Your task to perform on an android device: turn off improve location accuracy Image 0: 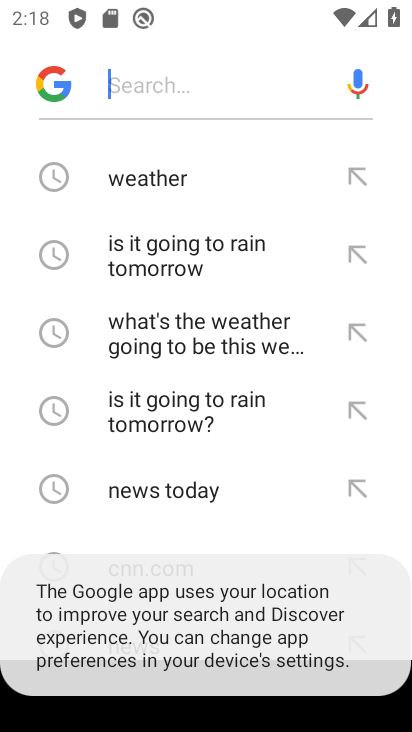
Step 0: press home button
Your task to perform on an android device: turn off improve location accuracy Image 1: 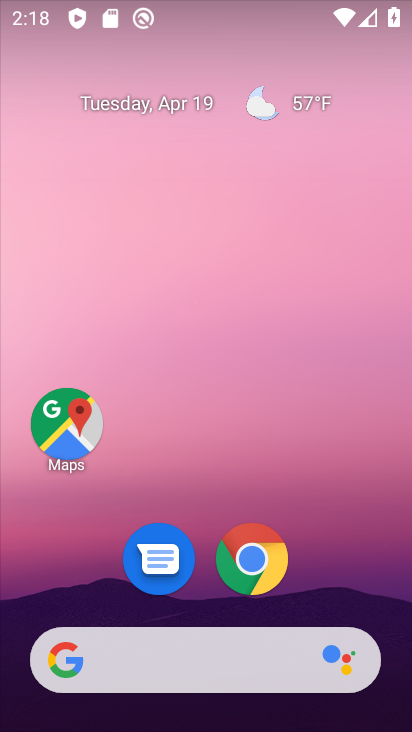
Step 1: drag from (375, 537) to (382, 62)
Your task to perform on an android device: turn off improve location accuracy Image 2: 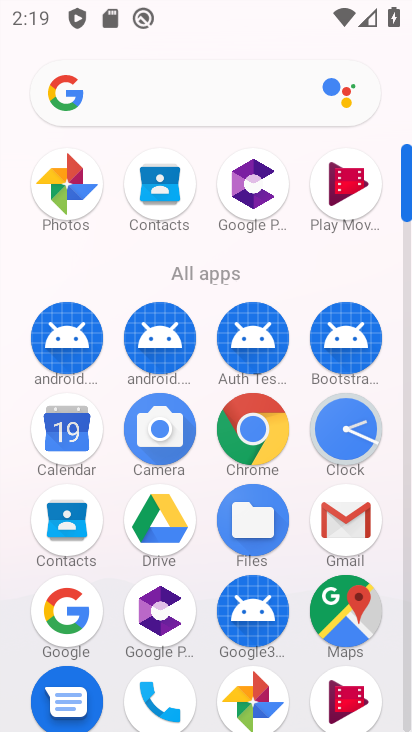
Step 2: drag from (388, 476) to (411, 304)
Your task to perform on an android device: turn off improve location accuracy Image 3: 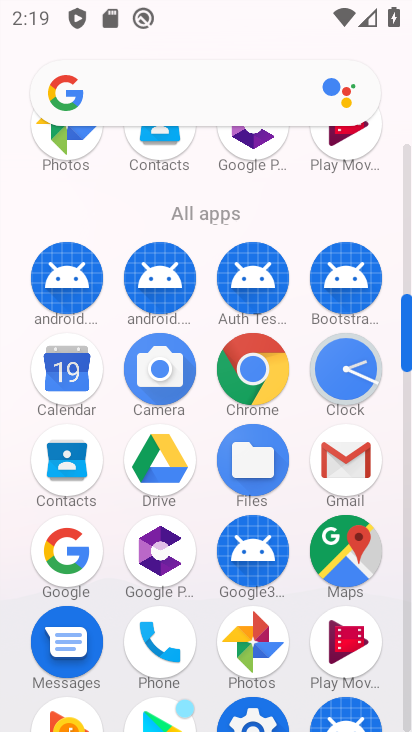
Step 3: drag from (399, 561) to (411, 318)
Your task to perform on an android device: turn off improve location accuracy Image 4: 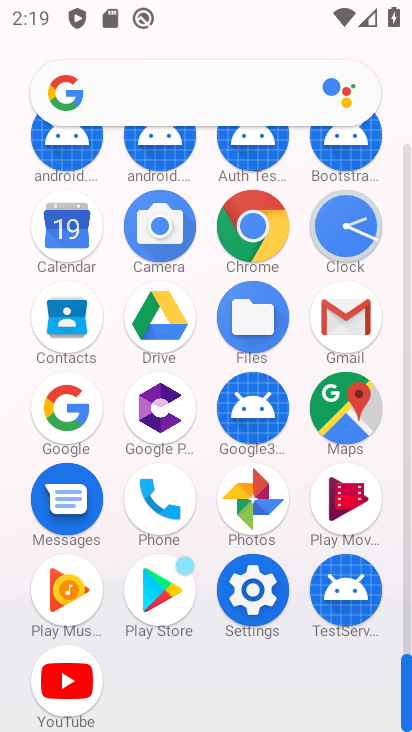
Step 4: click (262, 597)
Your task to perform on an android device: turn off improve location accuracy Image 5: 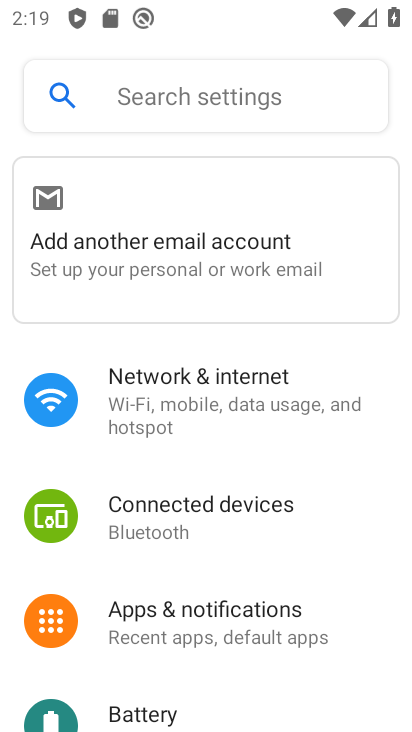
Step 5: drag from (377, 585) to (391, 369)
Your task to perform on an android device: turn off improve location accuracy Image 6: 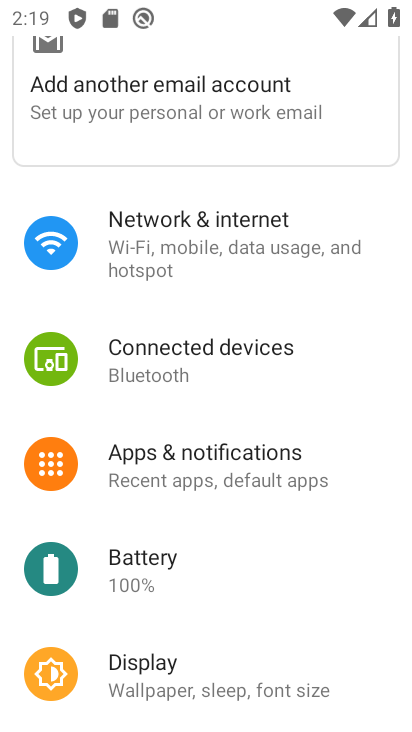
Step 6: drag from (351, 585) to (357, 358)
Your task to perform on an android device: turn off improve location accuracy Image 7: 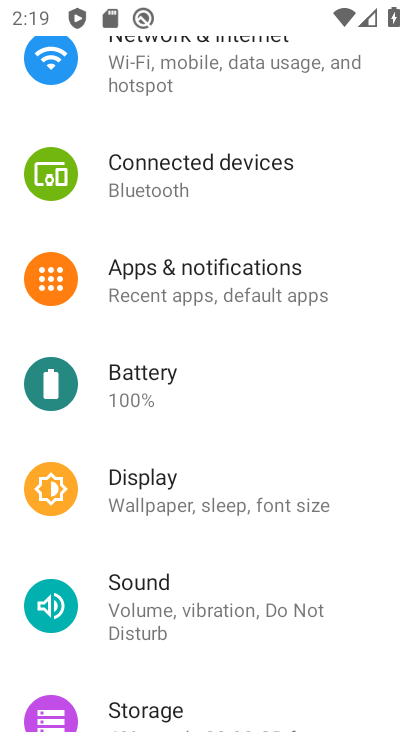
Step 7: drag from (355, 605) to (362, 409)
Your task to perform on an android device: turn off improve location accuracy Image 8: 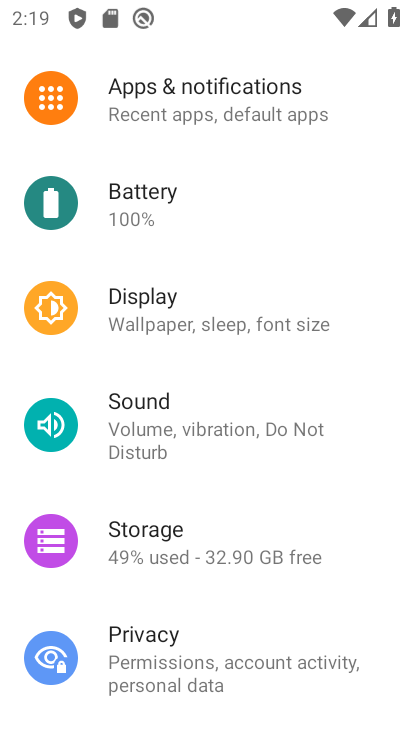
Step 8: drag from (355, 560) to (376, 324)
Your task to perform on an android device: turn off improve location accuracy Image 9: 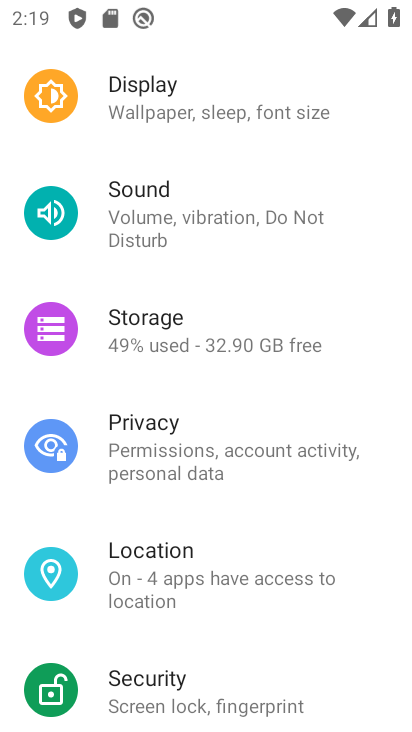
Step 9: drag from (367, 598) to (375, 348)
Your task to perform on an android device: turn off improve location accuracy Image 10: 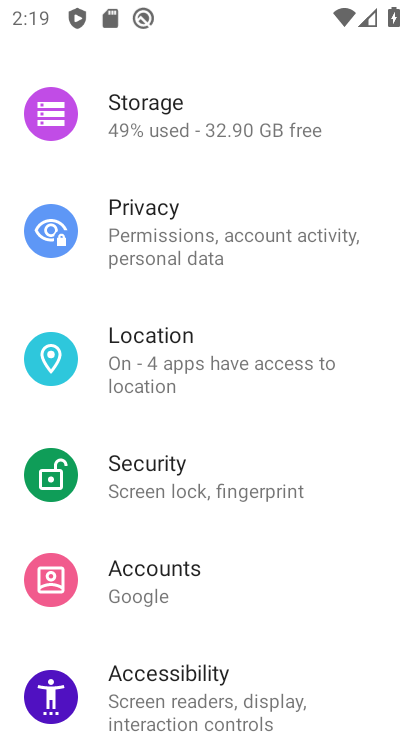
Step 10: click (151, 347)
Your task to perform on an android device: turn off improve location accuracy Image 11: 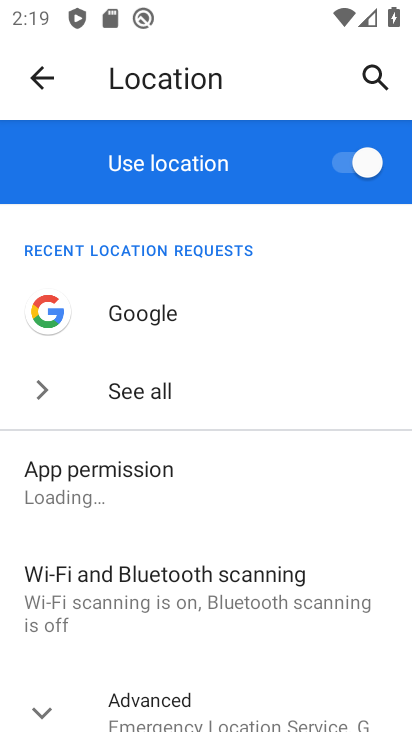
Step 11: drag from (351, 646) to (357, 265)
Your task to perform on an android device: turn off improve location accuracy Image 12: 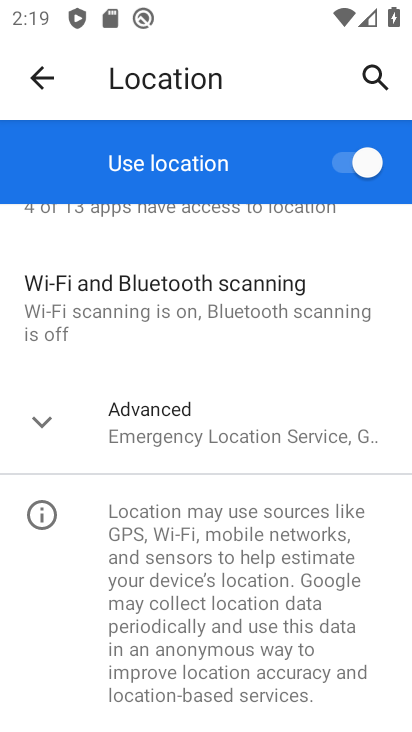
Step 12: click (211, 446)
Your task to perform on an android device: turn off improve location accuracy Image 13: 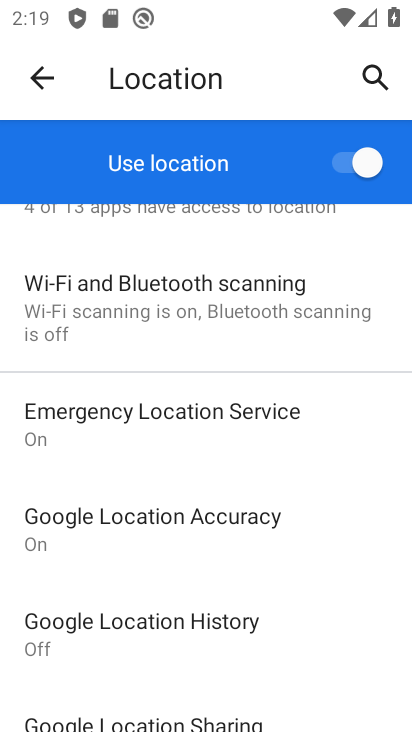
Step 13: drag from (353, 633) to (362, 380)
Your task to perform on an android device: turn off improve location accuracy Image 14: 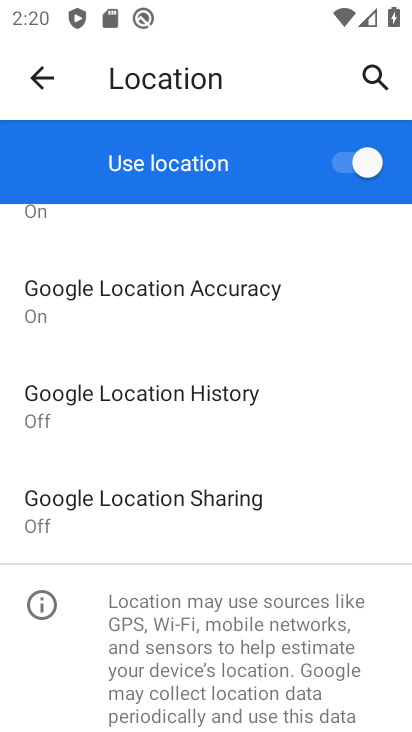
Step 14: click (118, 292)
Your task to perform on an android device: turn off improve location accuracy Image 15: 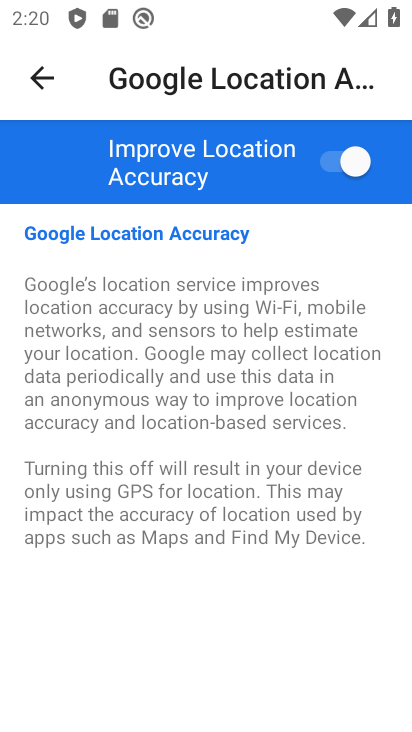
Step 15: click (342, 161)
Your task to perform on an android device: turn off improve location accuracy Image 16: 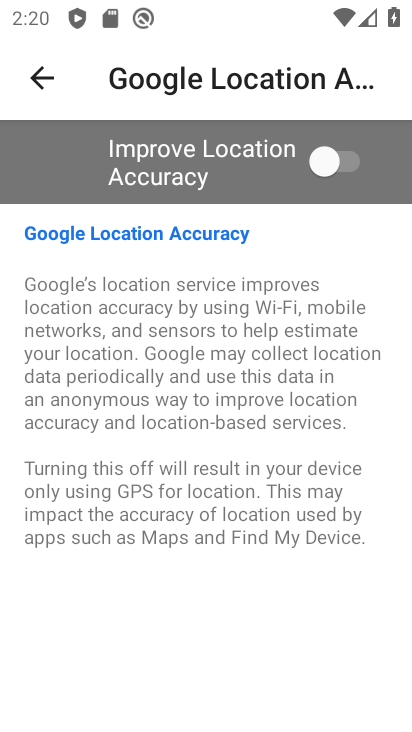
Step 16: task complete